Your task to perform on an android device: What's the weather? Image 0: 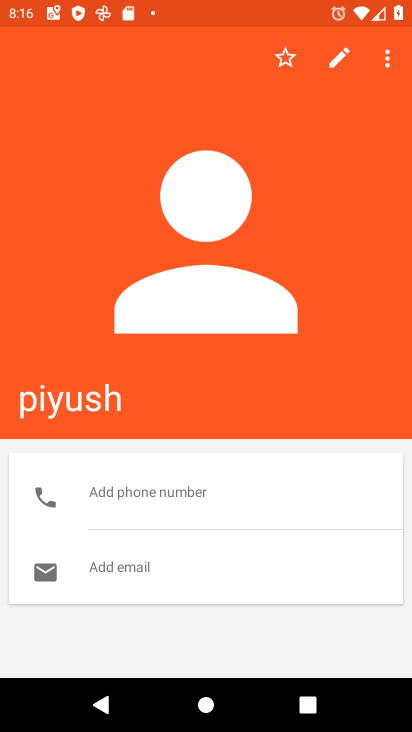
Step 0: press home button
Your task to perform on an android device: What's the weather? Image 1: 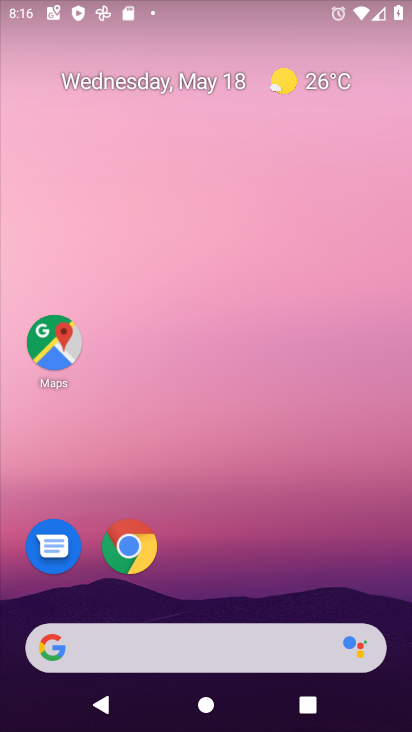
Step 1: drag from (388, 602) to (297, 103)
Your task to perform on an android device: What's the weather? Image 2: 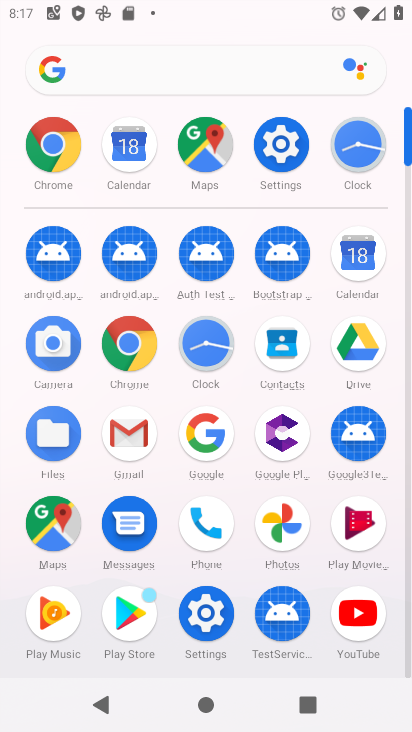
Step 2: click (221, 444)
Your task to perform on an android device: What's the weather? Image 3: 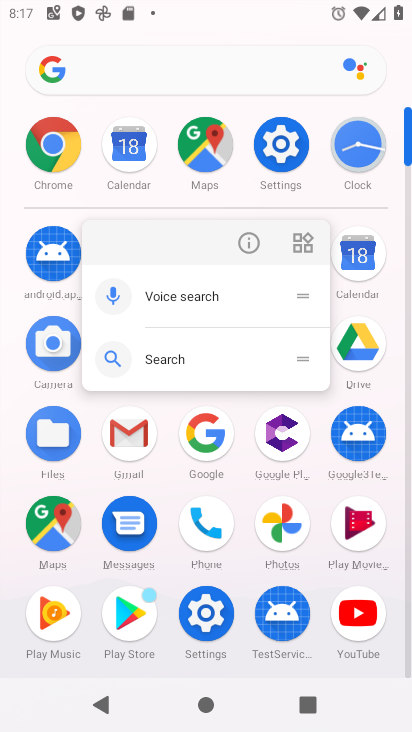
Step 3: click (221, 444)
Your task to perform on an android device: What's the weather? Image 4: 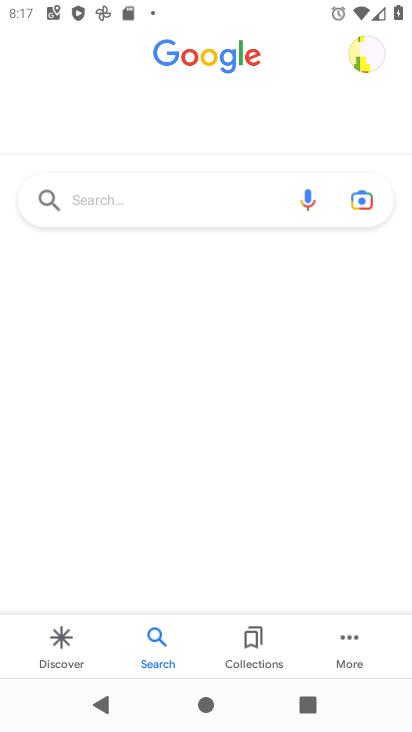
Step 4: click (148, 208)
Your task to perform on an android device: What's the weather? Image 5: 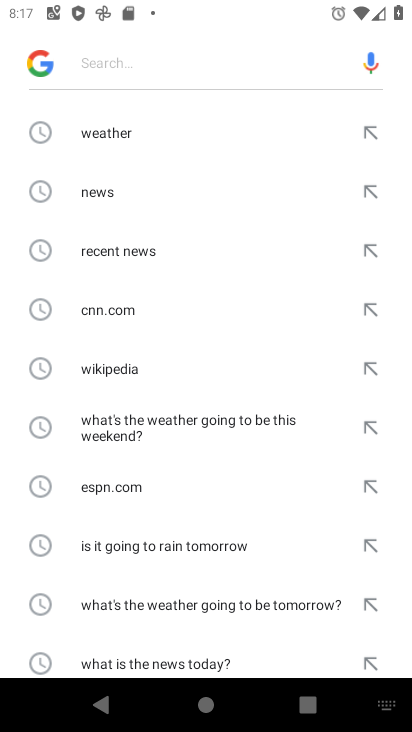
Step 5: click (145, 128)
Your task to perform on an android device: What's the weather? Image 6: 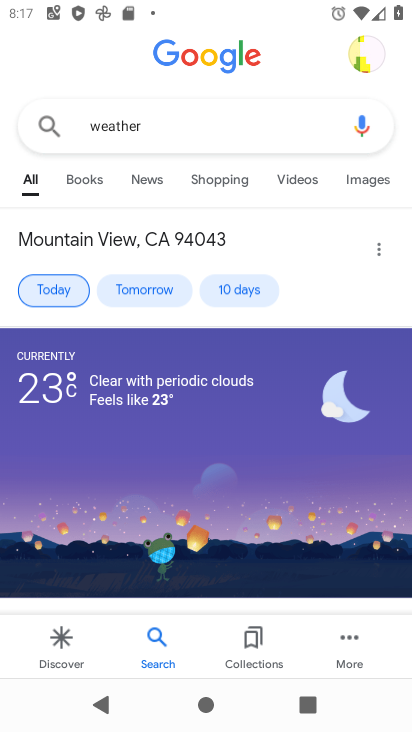
Step 6: task complete